Your task to perform on an android device: See recent photos Image 0: 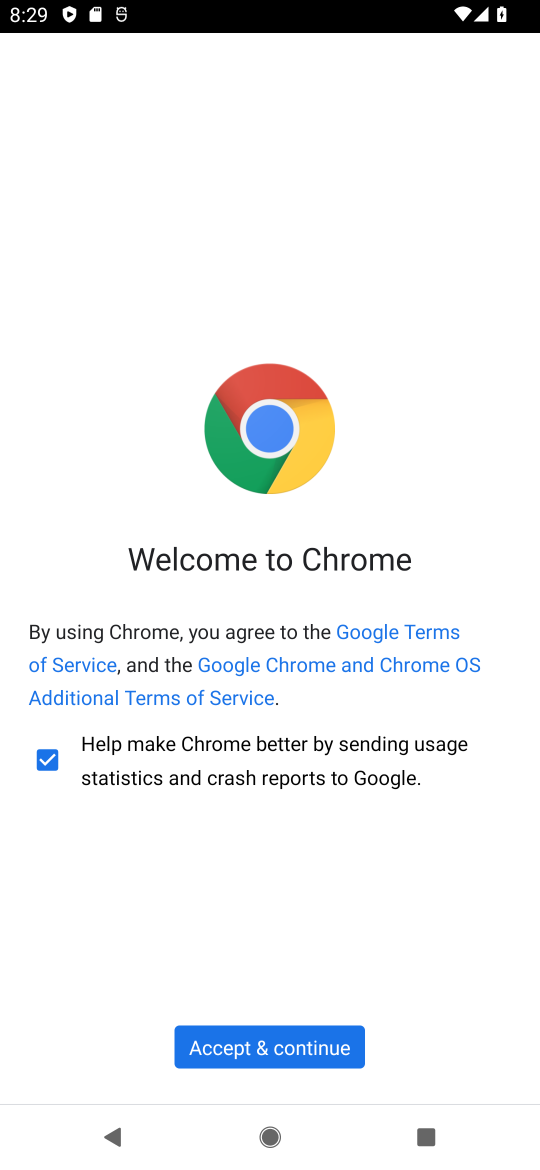
Step 0: click (265, 1046)
Your task to perform on an android device: See recent photos Image 1: 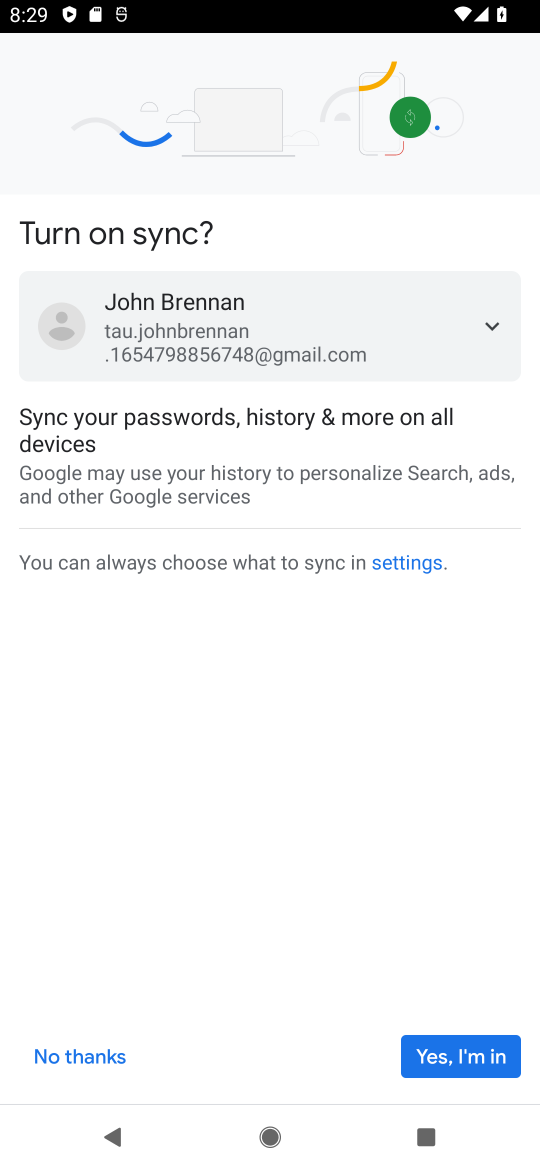
Step 1: press home button
Your task to perform on an android device: See recent photos Image 2: 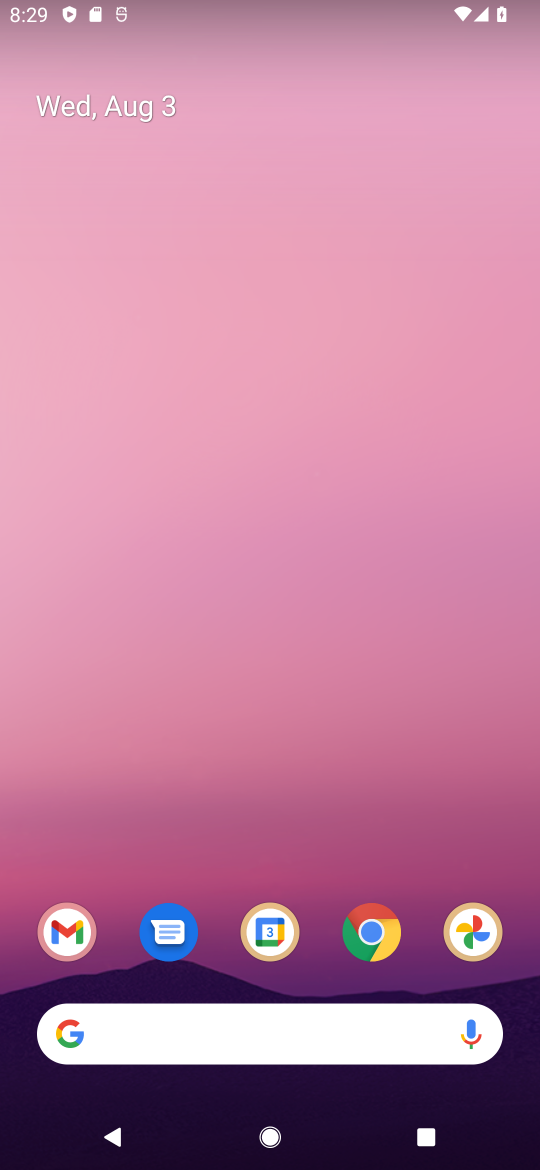
Step 2: drag from (240, 1015) to (249, 294)
Your task to perform on an android device: See recent photos Image 3: 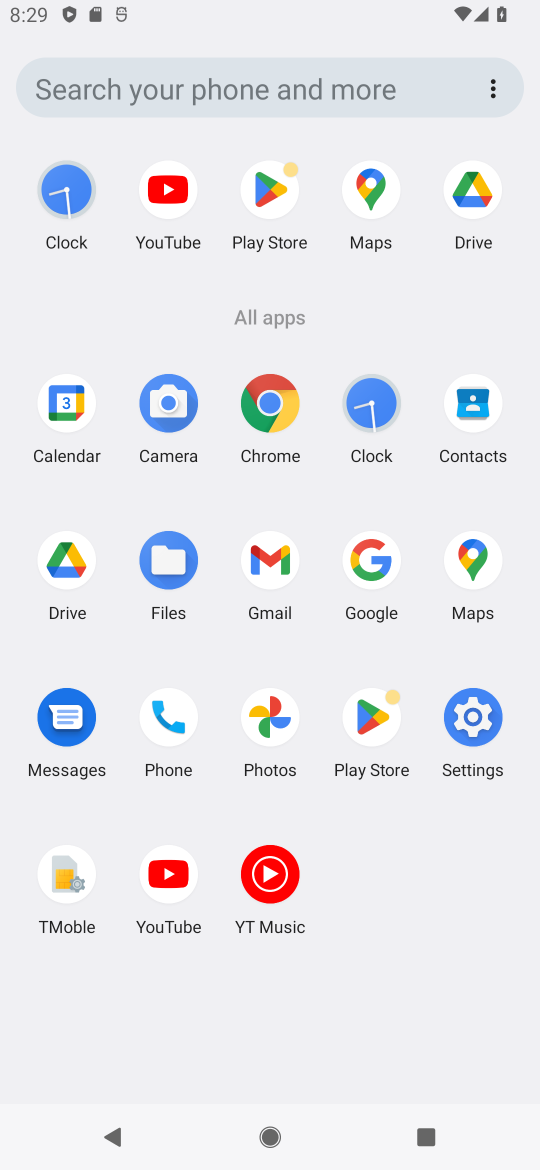
Step 3: click (264, 713)
Your task to perform on an android device: See recent photos Image 4: 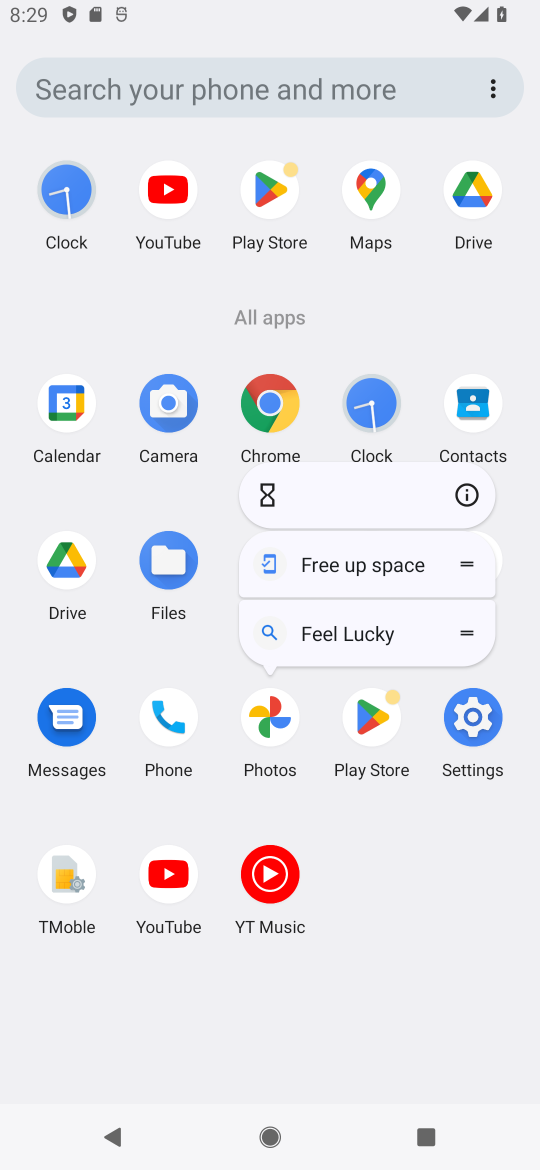
Step 4: click (264, 711)
Your task to perform on an android device: See recent photos Image 5: 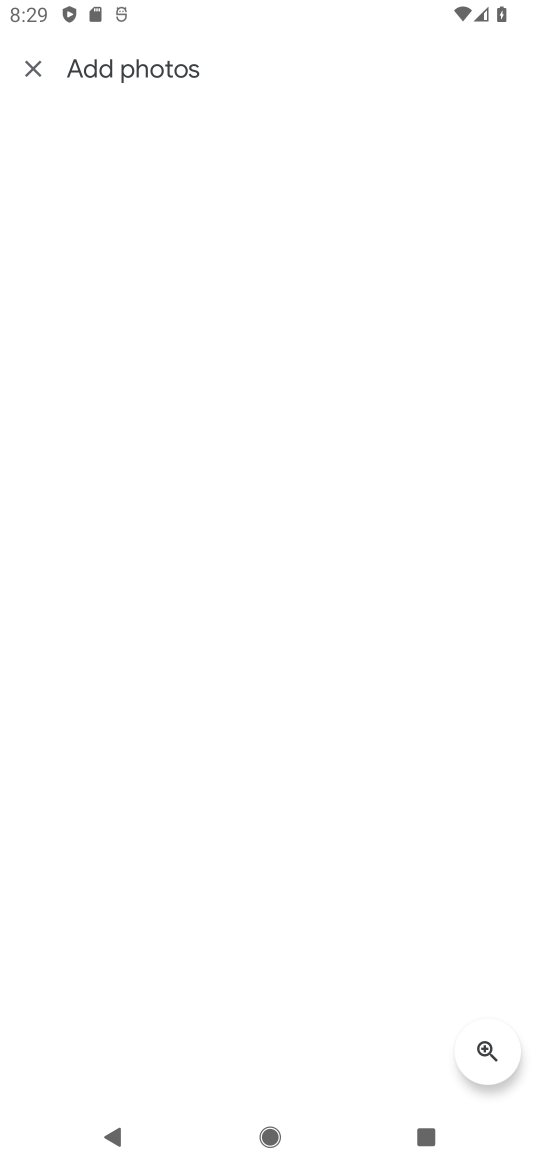
Step 5: click (51, 66)
Your task to perform on an android device: See recent photos Image 6: 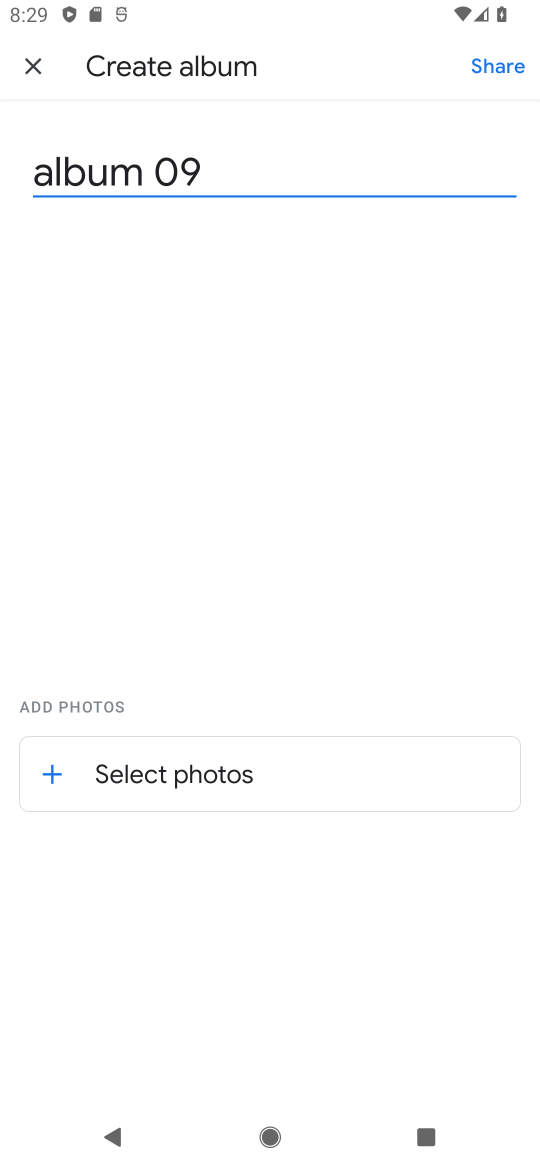
Step 6: click (34, 78)
Your task to perform on an android device: See recent photos Image 7: 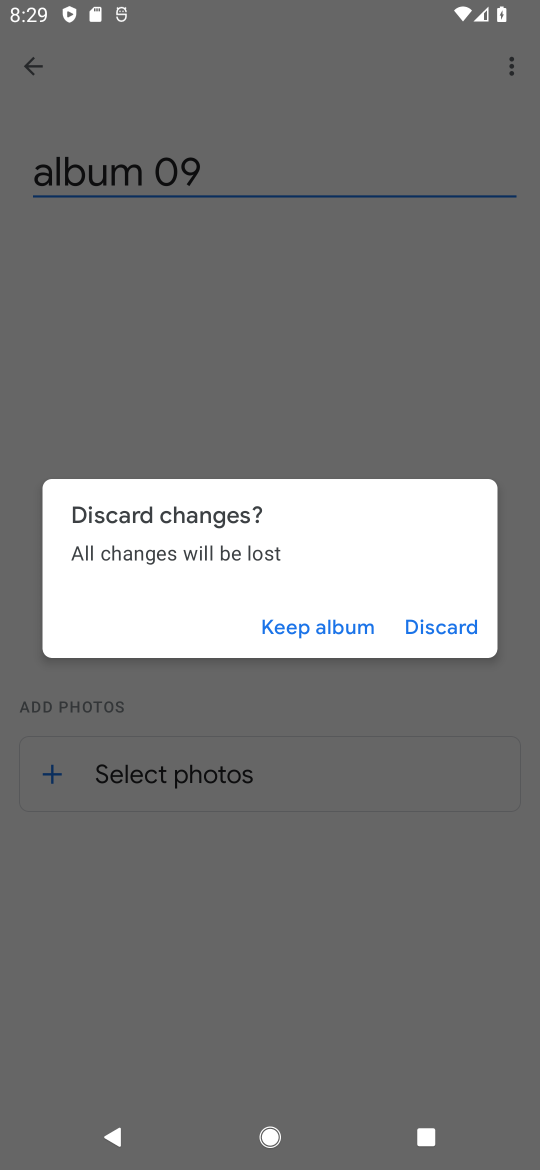
Step 7: click (422, 631)
Your task to perform on an android device: See recent photos Image 8: 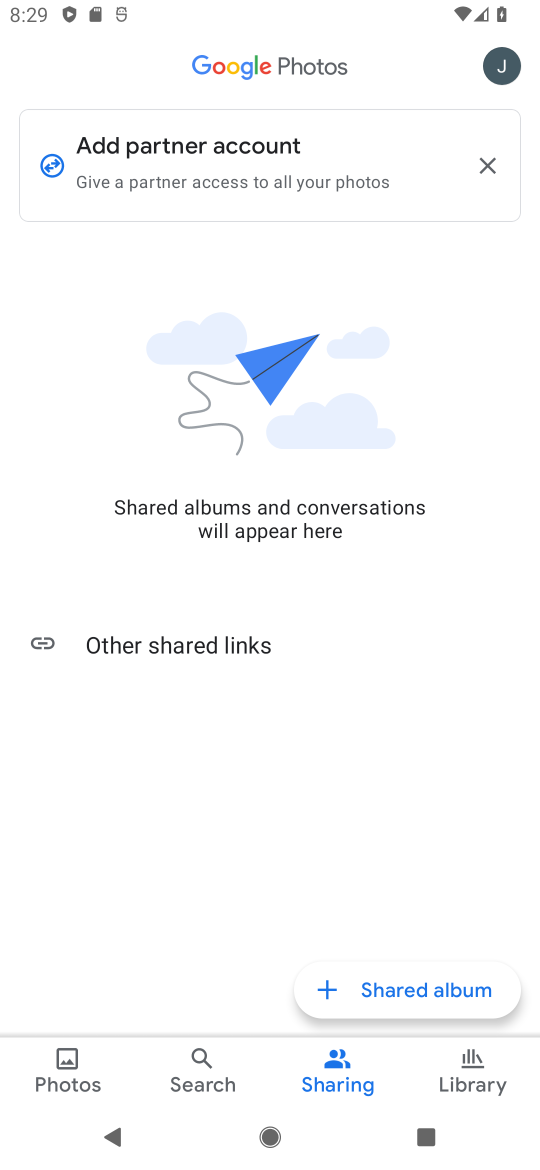
Step 8: click (35, 1060)
Your task to perform on an android device: See recent photos Image 9: 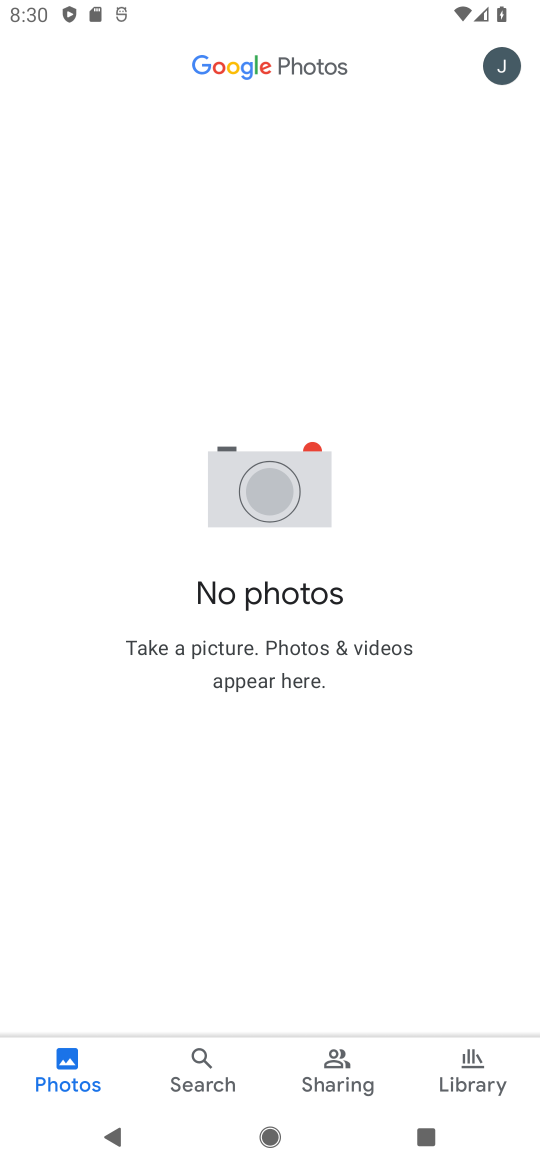
Step 9: task complete